Your task to perform on an android device: check the backup settings in the google photos Image 0: 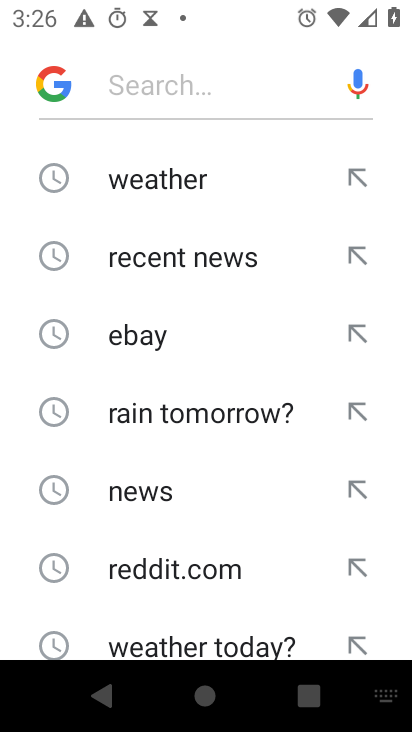
Step 0: press home button
Your task to perform on an android device: check the backup settings in the google photos Image 1: 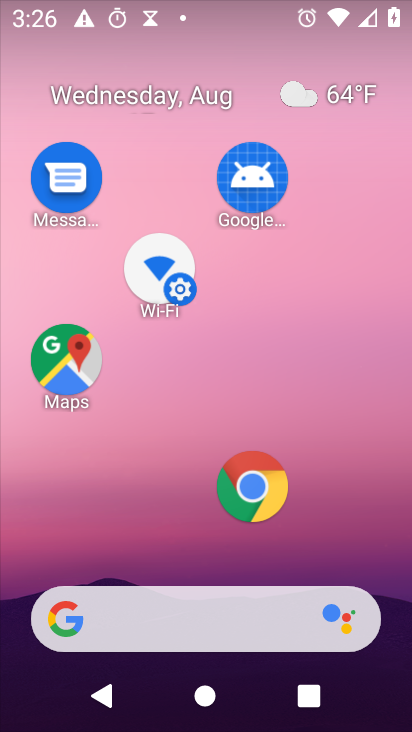
Step 1: drag from (289, 490) to (191, 3)
Your task to perform on an android device: check the backup settings in the google photos Image 2: 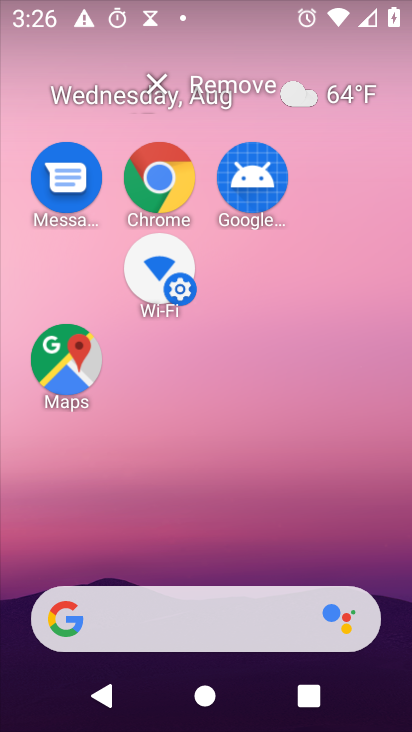
Step 2: click (277, 563)
Your task to perform on an android device: check the backup settings in the google photos Image 3: 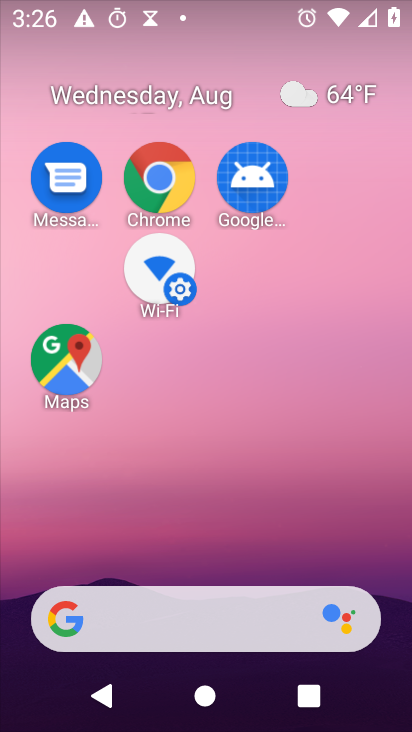
Step 3: drag from (304, 576) to (146, 0)
Your task to perform on an android device: check the backup settings in the google photos Image 4: 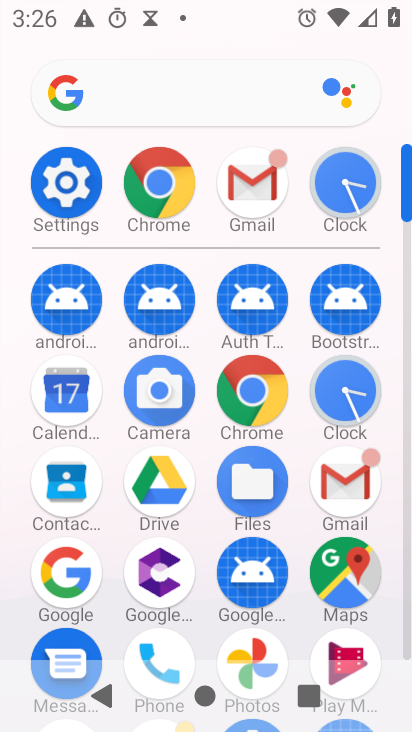
Step 4: drag from (201, 631) to (162, 9)
Your task to perform on an android device: check the backup settings in the google photos Image 5: 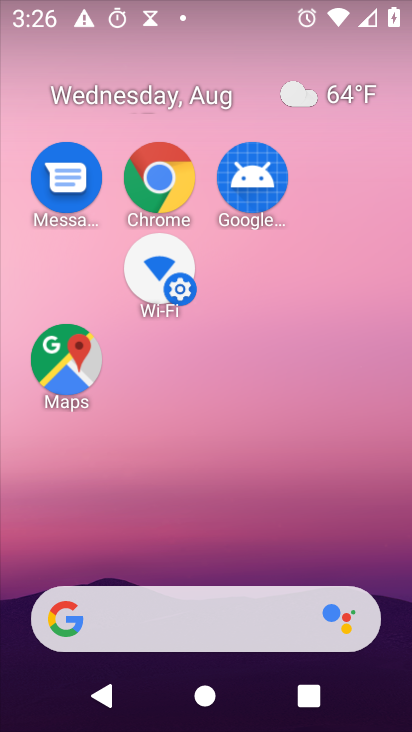
Step 5: drag from (262, 522) to (17, 379)
Your task to perform on an android device: check the backup settings in the google photos Image 6: 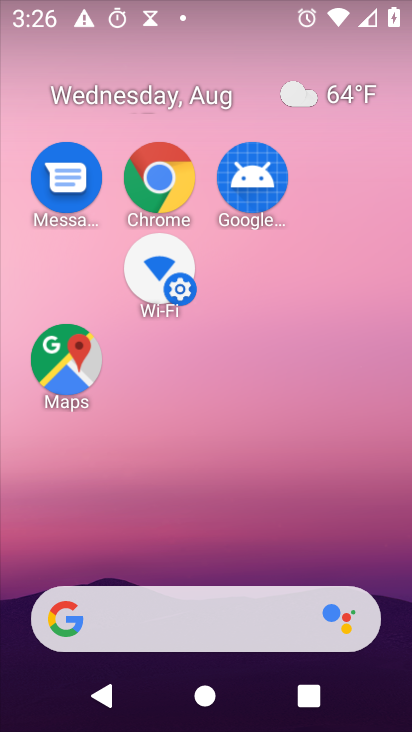
Step 6: drag from (171, 557) to (20, 108)
Your task to perform on an android device: check the backup settings in the google photos Image 7: 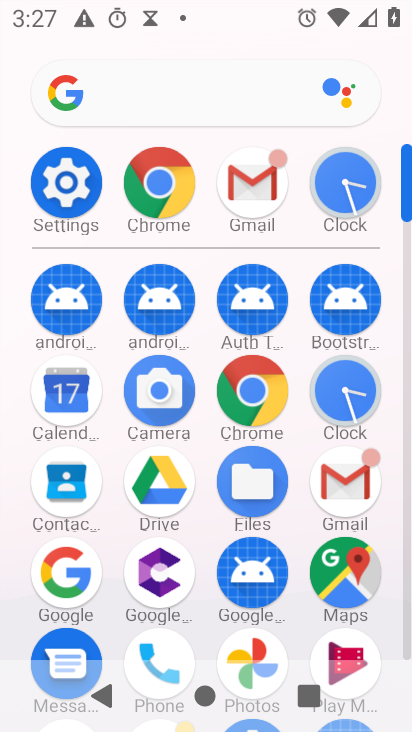
Step 7: click (260, 638)
Your task to perform on an android device: check the backup settings in the google photos Image 8: 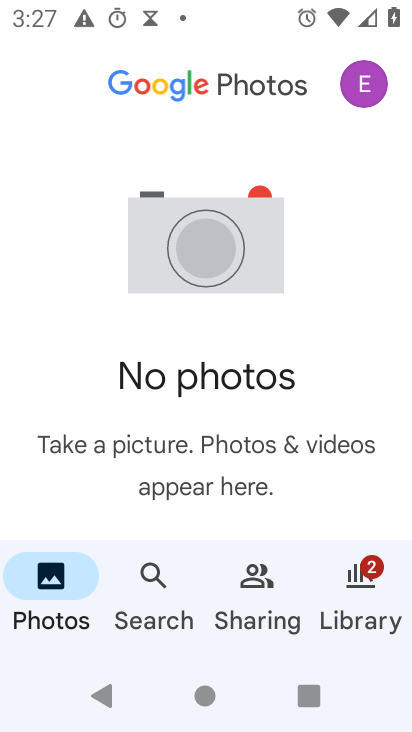
Step 8: click (365, 89)
Your task to perform on an android device: check the backup settings in the google photos Image 9: 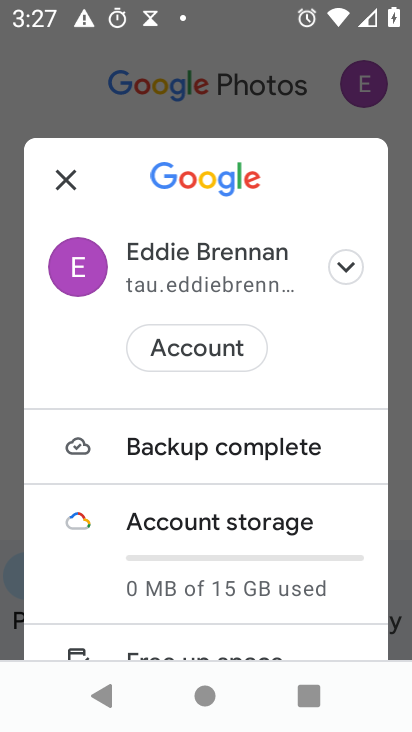
Step 9: drag from (301, 602) to (403, 41)
Your task to perform on an android device: check the backup settings in the google photos Image 10: 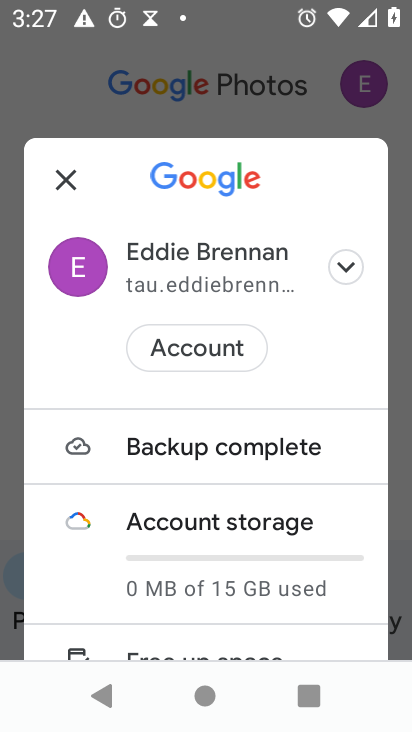
Step 10: drag from (290, 633) to (388, 15)
Your task to perform on an android device: check the backup settings in the google photos Image 11: 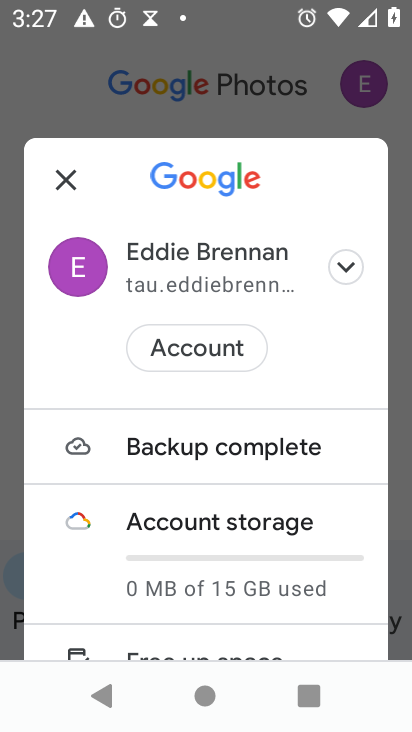
Step 11: drag from (110, 580) to (372, 70)
Your task to perform on an android device: check the backup settings in the google photos Image 12: 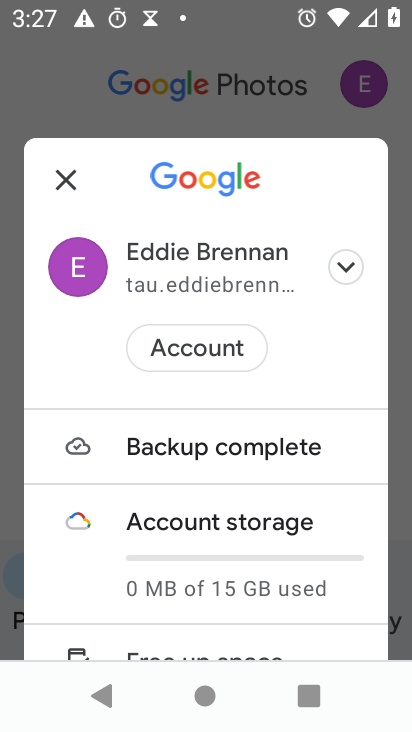
Step 12: drag from (175, 639) to (321, 154)
Your task to perform on an android device: check the backup settings in the google photos Image 13: 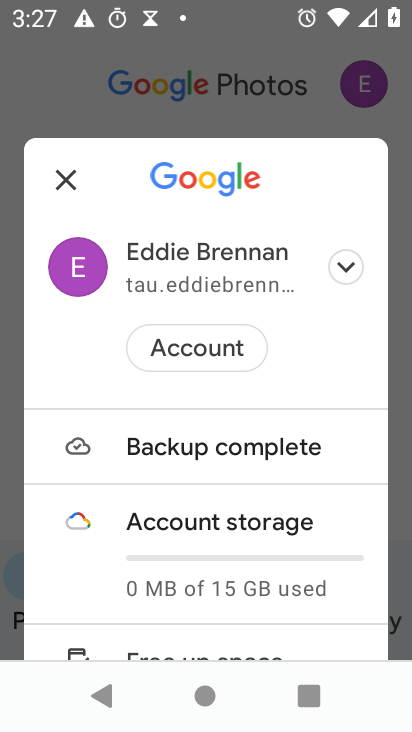
Step 13: drag from (237, 631) to (215, 184)
Your task to perform on an android device: check the backup settings in the google photos Image 14: 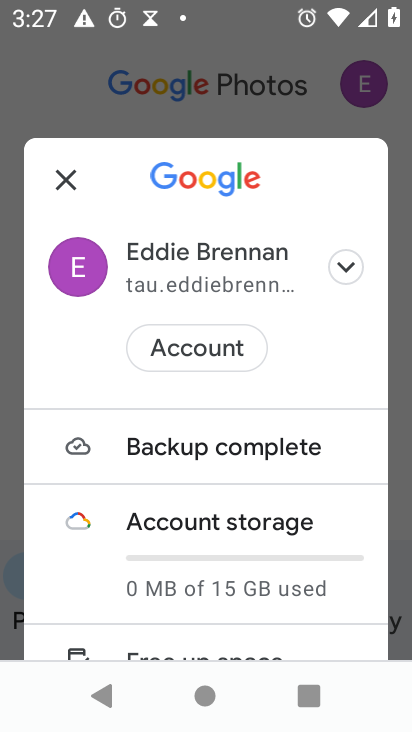
Step 14: drag from (199, 632) to (187, 264)
Your task to perform on an android device: check the backup settings in the google photos Image 15: 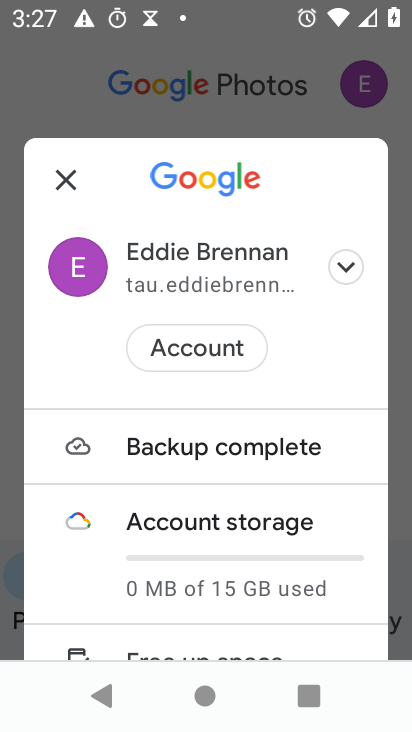
Step 15: drag from (225, 630) to (229, 262)
Your task to perform on an android device: check the backup settings in the google photos Image 16: 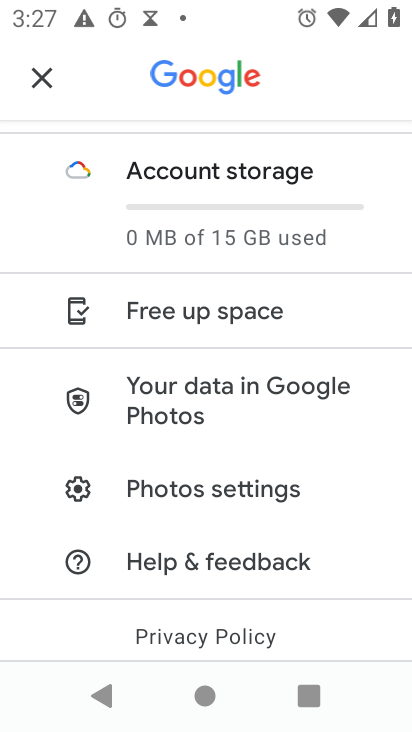
Step 16: click (228, 491)
Your task to perform on an android device: check the backup settings in the google photos Image 17: 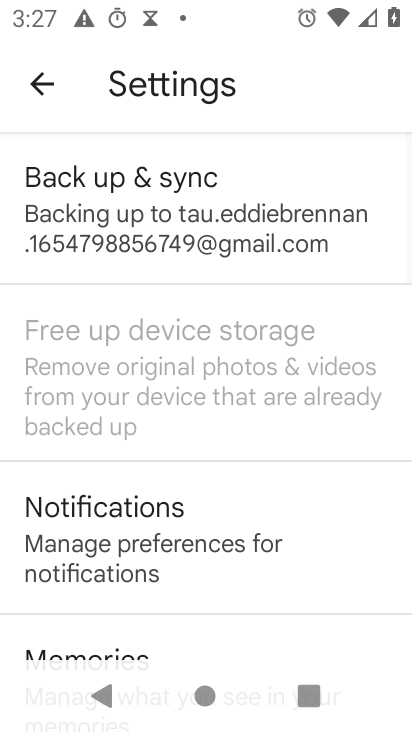
Step 17: click (125, 177)
Your task to perform on an android device: check the backup settings in the google photos Image 18: 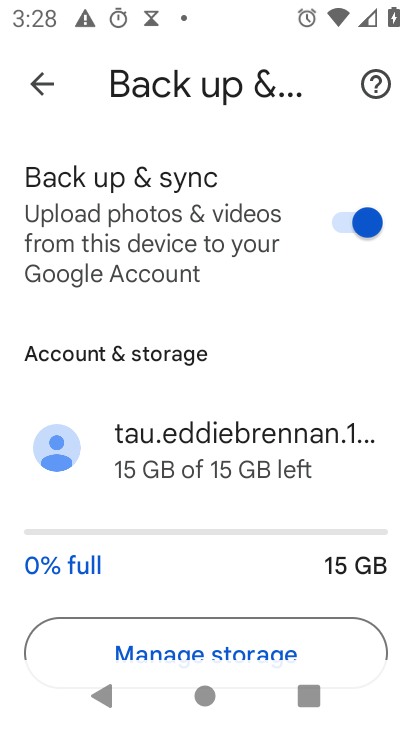
Step 18: task complete